Your task to perform on an android device: delete a single message in the gmail app Image 0: 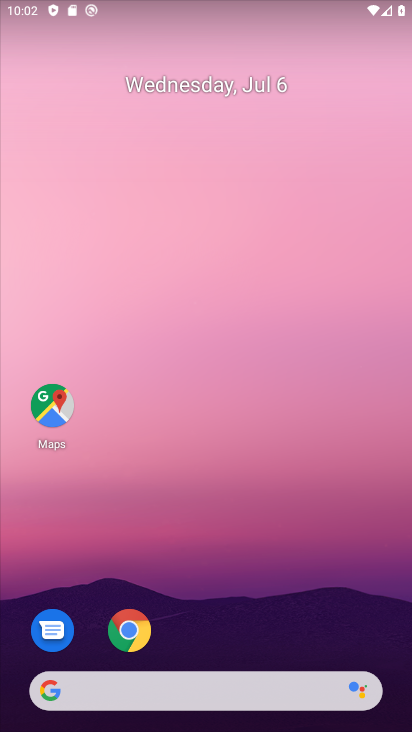
Step 0: drag from (362, 640) to (408, 227)
Your task to perform on an android device: delete a single message in the gmail app Image 1: 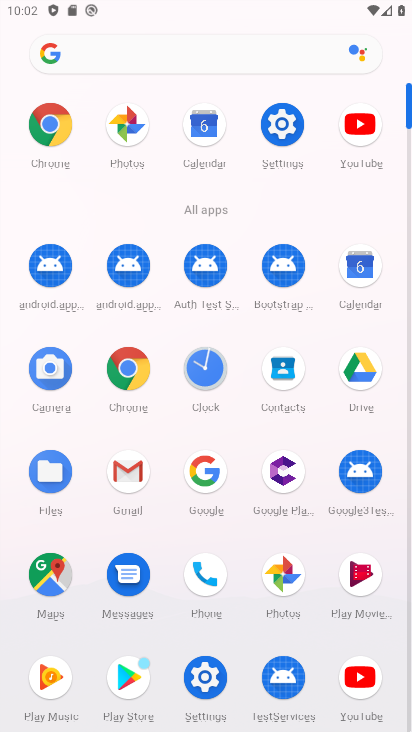
Step 1: click (131, 458)
Your task to perform on an android device: delete a single message in the gmail app Image 2: 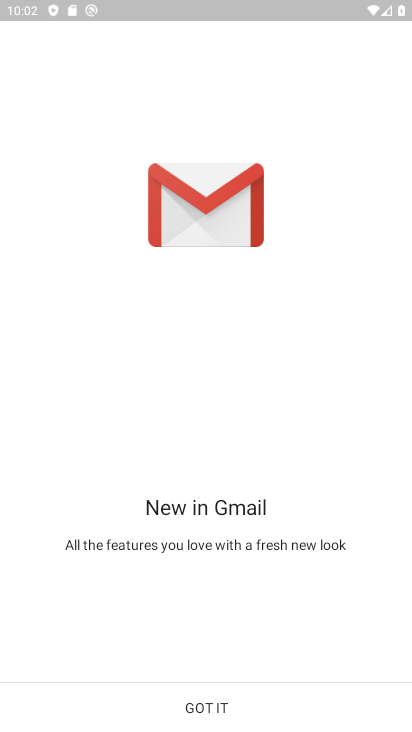
Step 2: click (251, 696)
Your task to perform on an android device: delete a single message in the gmail app Image 3: 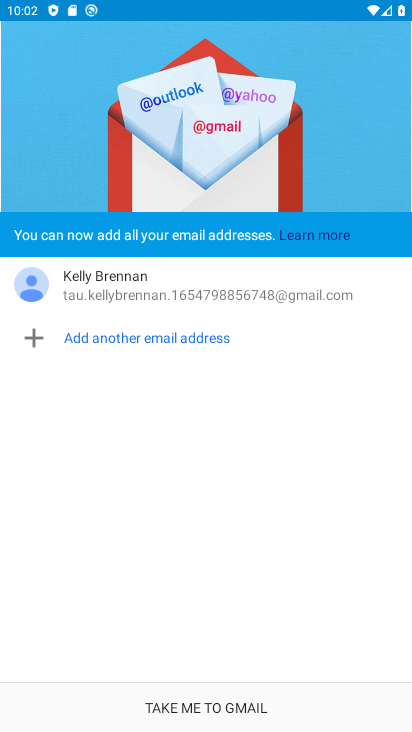
Step 3: click (224, 690)
Your task to perform on an android device: delete a single message in the gmail app Image 4: 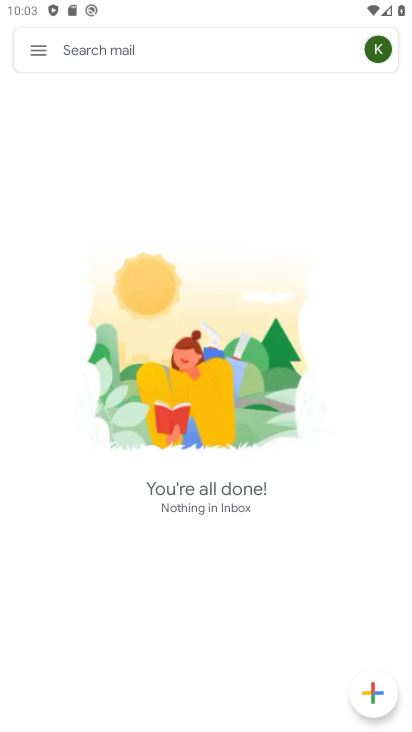
Step 4: click (52, 56)
Your task to perform on an android device: delete a single message in the gmail app Image 5: 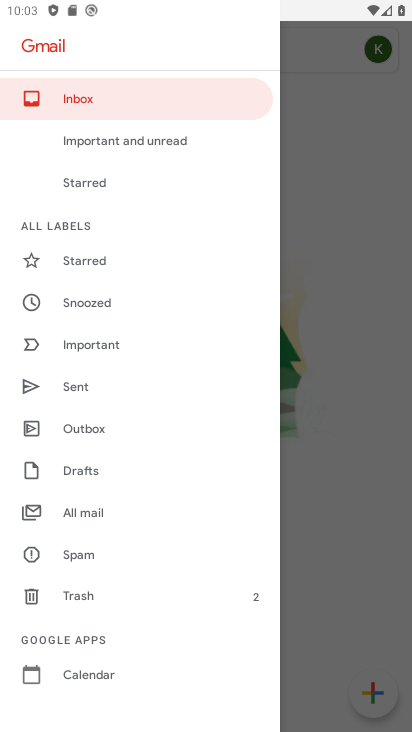
Step 5: click (81, 506)
Your task to perform on an android device: delete a single message in the gmail app Image 6: 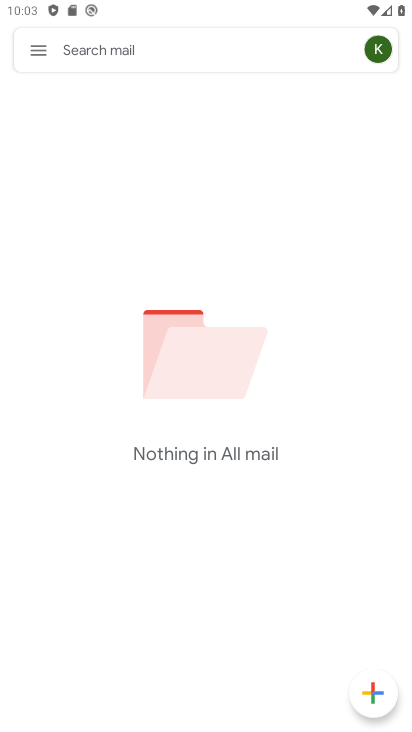
Step 6: task complete